Your task to perform on an android device: remove spam from my inbox in the gmail app Image 0: 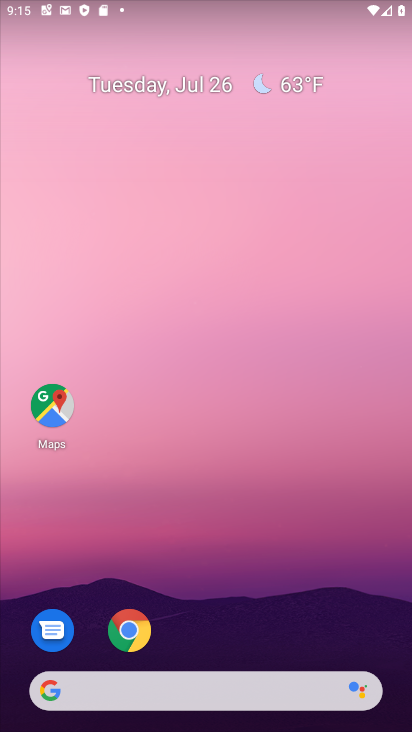
Step 0: drag from (224, 651) to (262, 196)
Your task to perform on an android device: remove spam from my inbox in the gmail app Image 1: 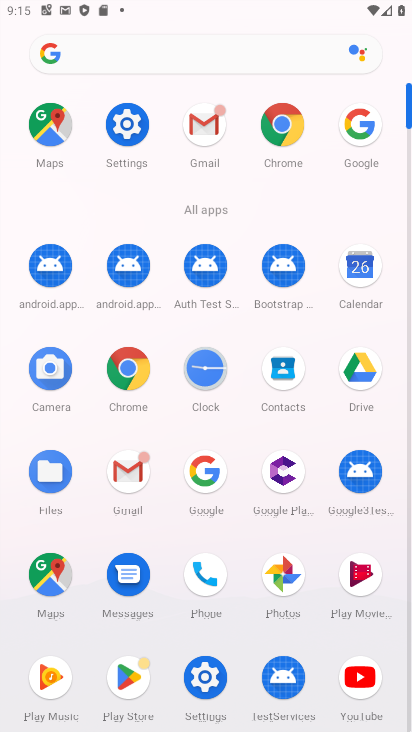
Step 1: click (119, 464)
Your task to perform on an android device: remove spam from my inbox in the gmail app Image 2: 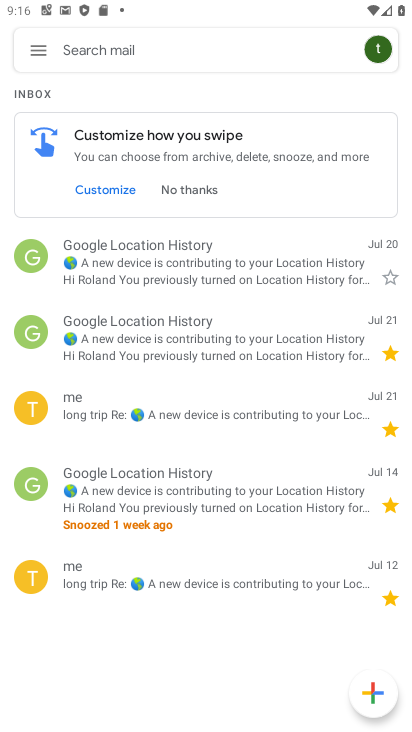
Step 2: click (37, 47)
Your task to perform on an android device: remove spam from my inbox in the gmail app Image 3: 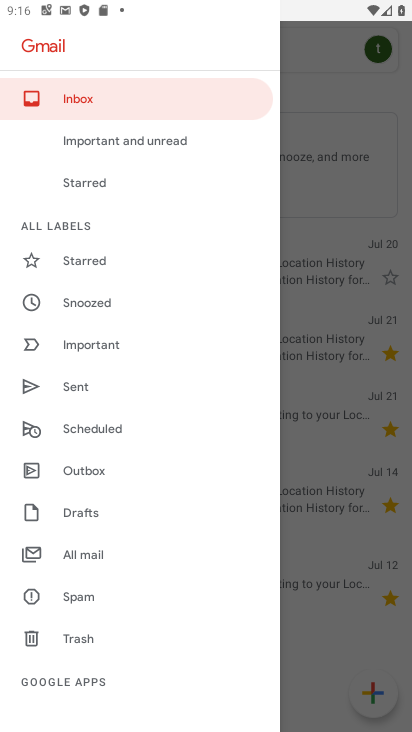
Step 3: click (60, 592)
Your task to perform on an android device: remove spam from my inbox in the gmail app Image 4: 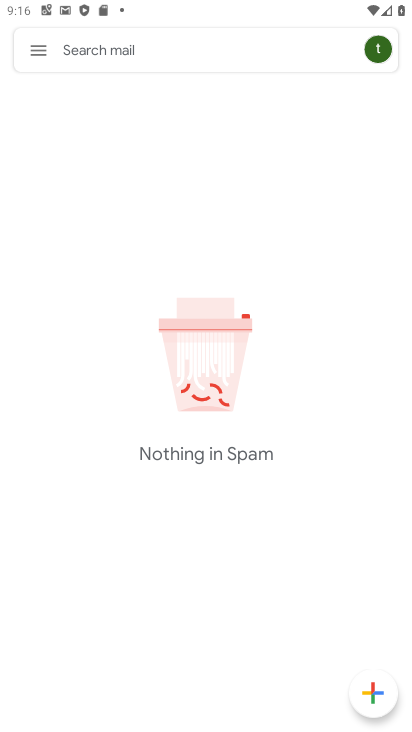
Step 4: task complete